Your task to perform on an android device: toggle airplane mode Image 0: 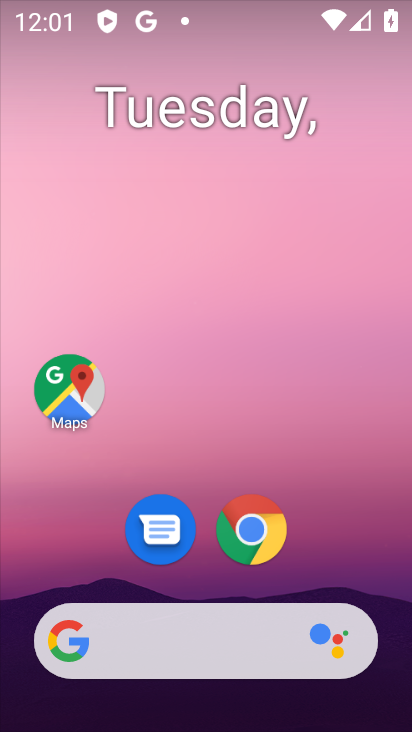
Step 0: drag from (213, 723) to (213, 171)
Your task to perform on an android device: toggle airplane mode Image 1: 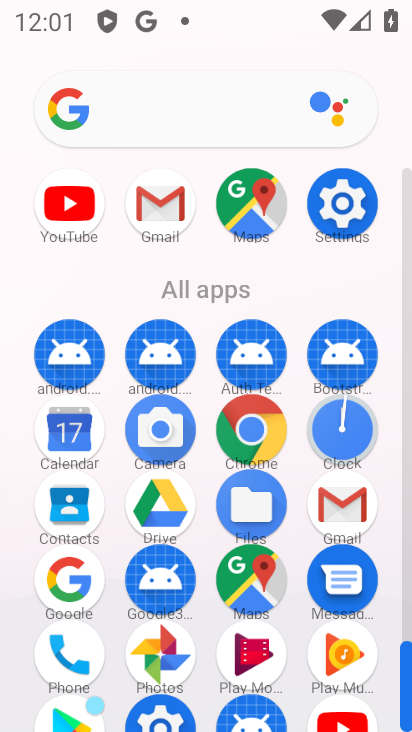
Step 1: click (337, 202)
Your task to perform on an android device: toggle airplane mode Image 2: 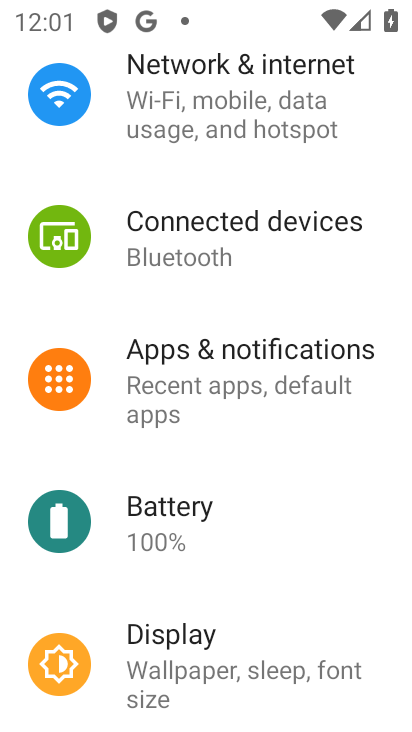
Step 2: drag from (204, 159) to (200, 561)
Your task to perform on an android device: toggle airplane mode Image 3: 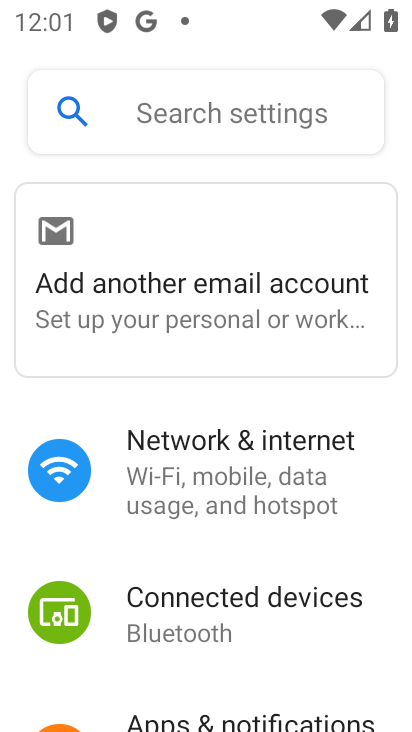
Step 3: click (179, 447)
Your task to perform on an android device: toggle airplane mode Image 4: 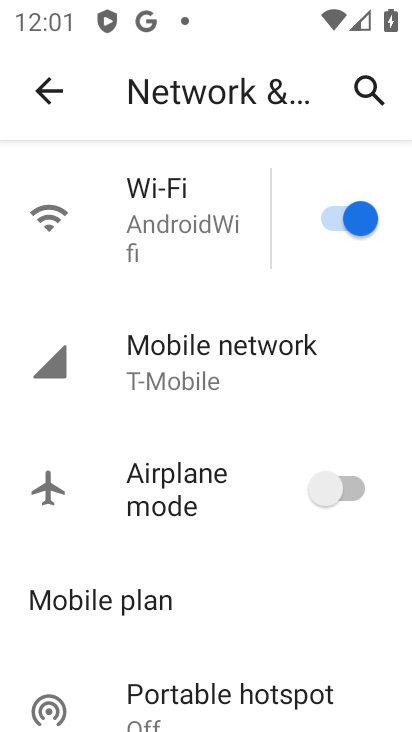
Step 4: click (359, 485)
Your task to perform on an android device: toggle airplane mode Image 5: 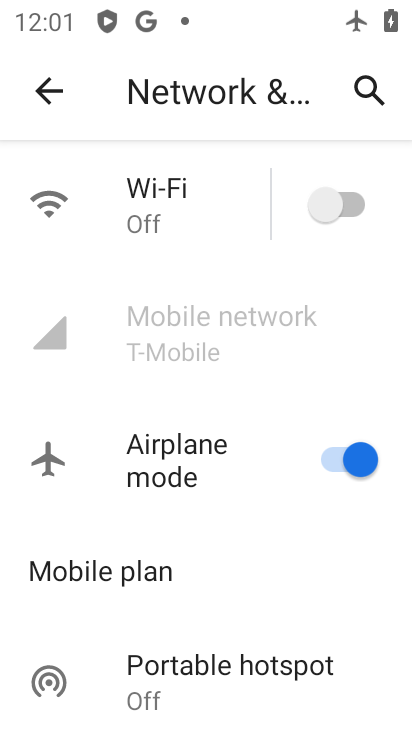
Step 5: task complete